Your task to perform on an android device: Add asus rog to the cart on bestbuy.com Image 0: 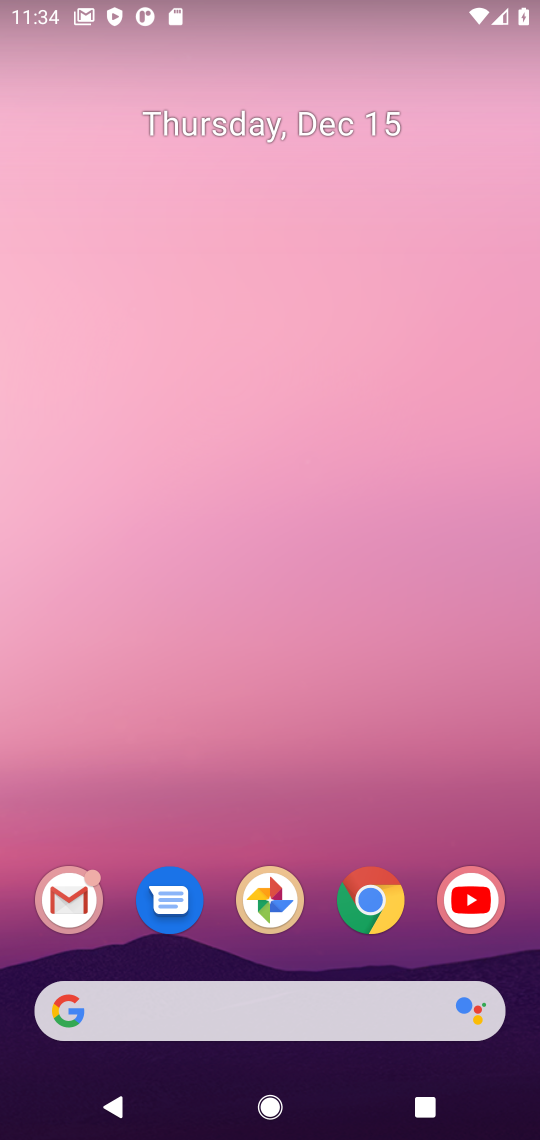
Step 0: click (381, 901)
Your task to perform on an android device: Add asus rog to the cart on bestbuy.com Image 1: 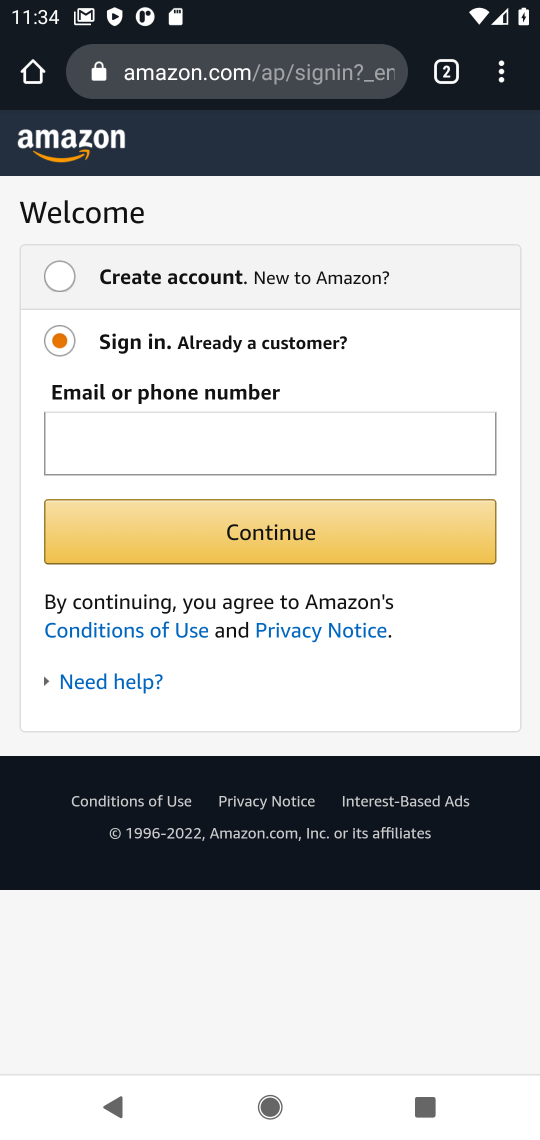
Step 1: click (305, 68)
Your task to perform on an android device: Add asus rog to the cart on bestbuy.com Image 2: 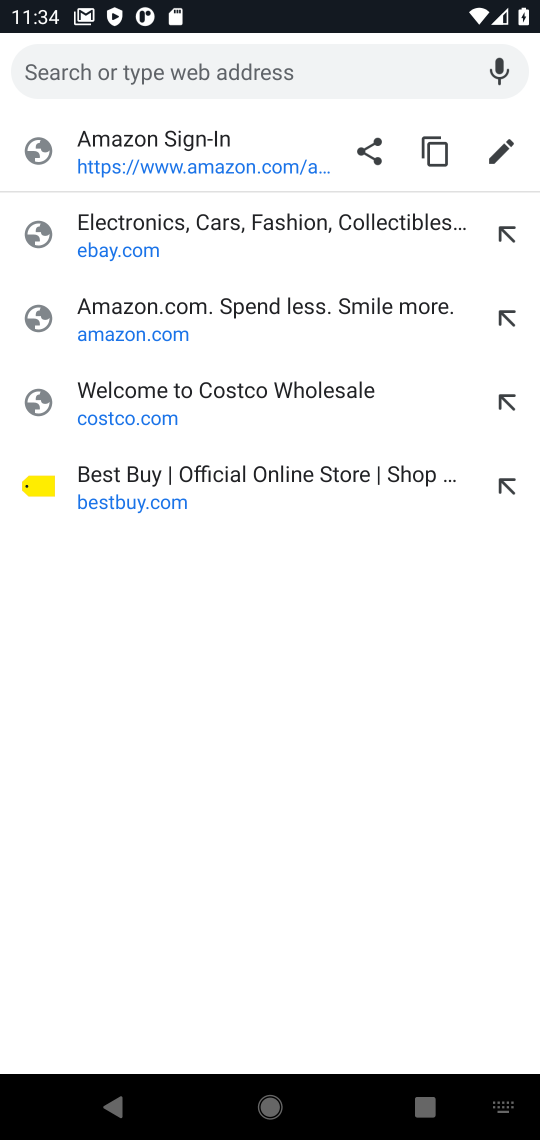
Step 2: click (236, 472)
Your task to perform on an android device: Add asus rog to the cart on bestbuy.com Image 3: 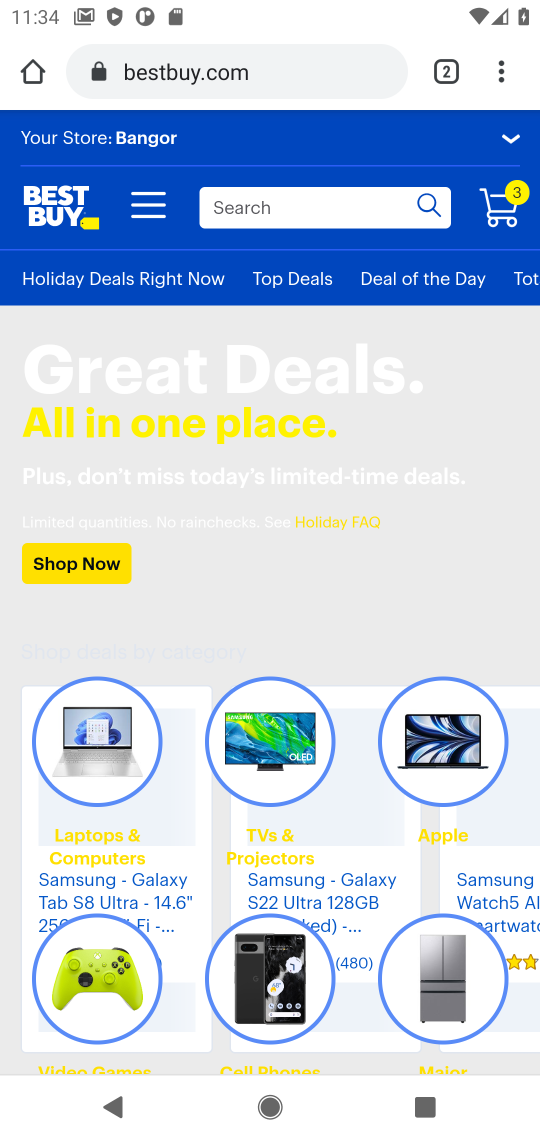
Step 3: click (353, 206)
Your task to perform on an android device: Add asus rog to the cart on bestbuy.com Image 4: 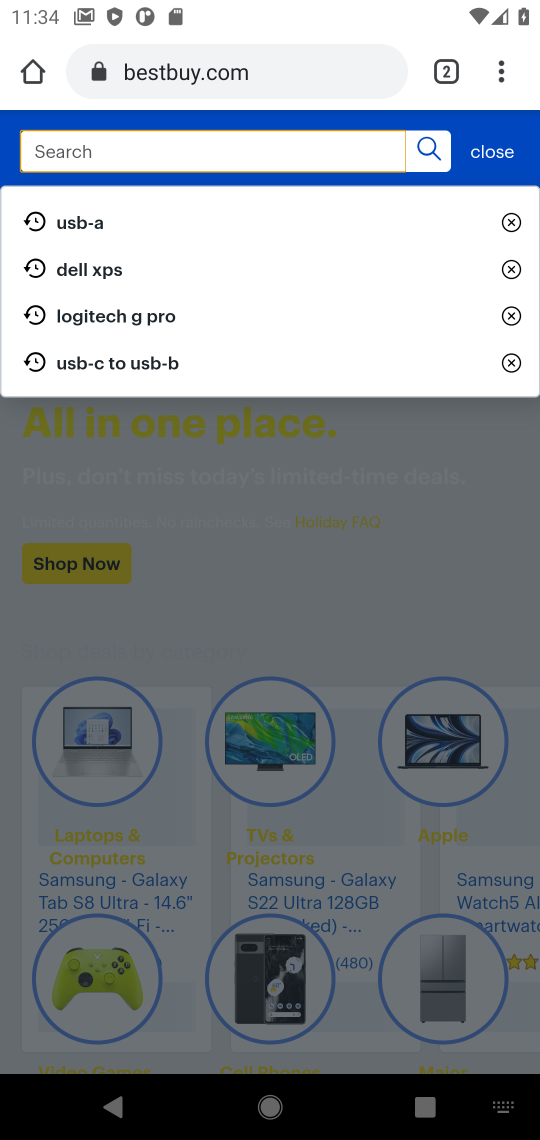
Step 4: type "asus rog "
Your task to perform on an android device: Add asus rog to the cart on bestbuy.com Image 5: 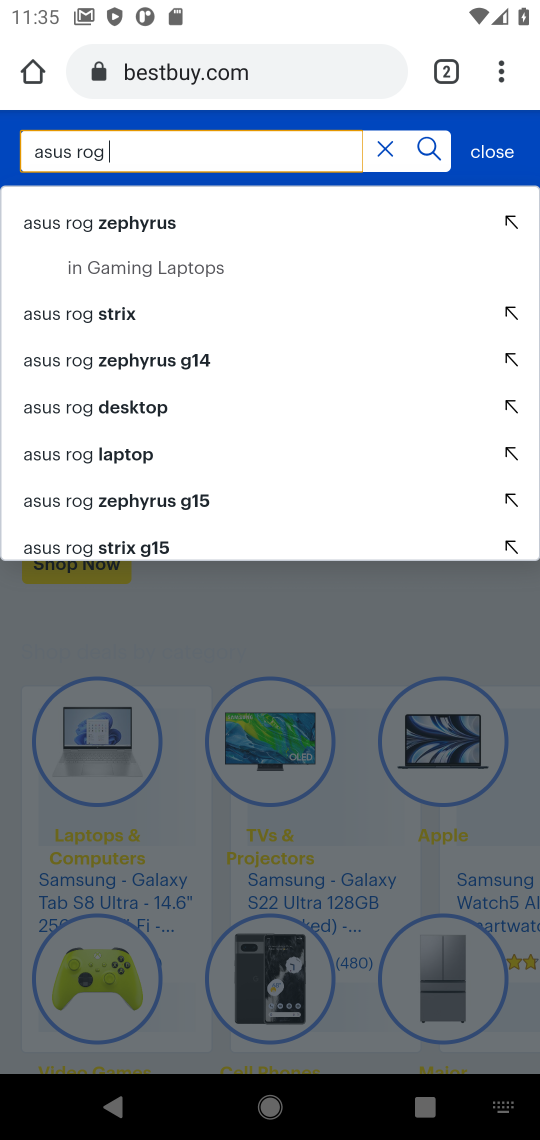
Step 5: click (65, 319)
Your task to perform on an android device: Add asus rog to the cart on bestbuy.com Image 6: 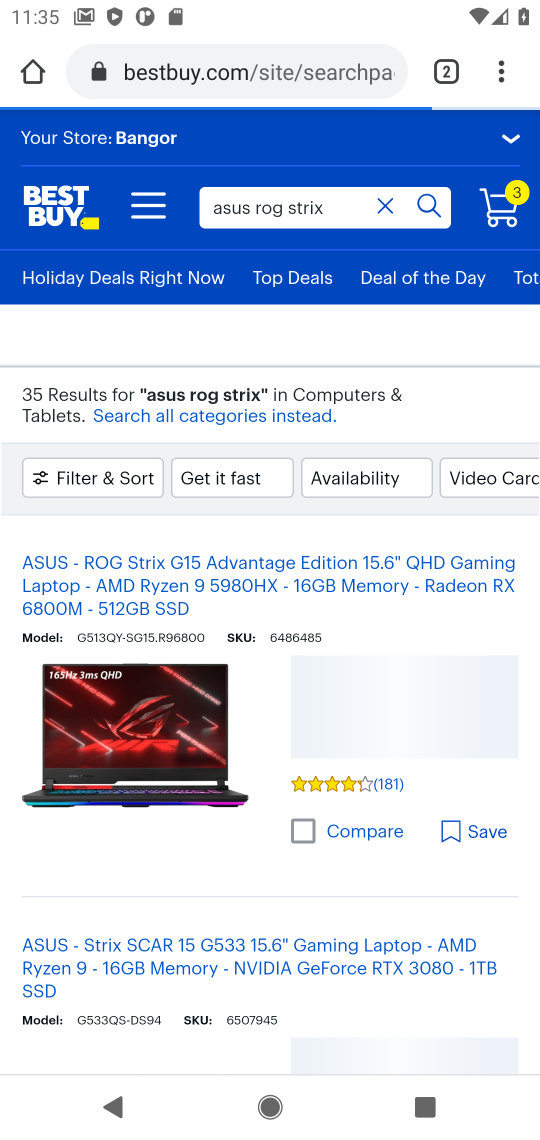
Step 6: click (139, 728)
Your task to perform on an android device: Add asus rog to the cart on bestbuy.com Image 7: 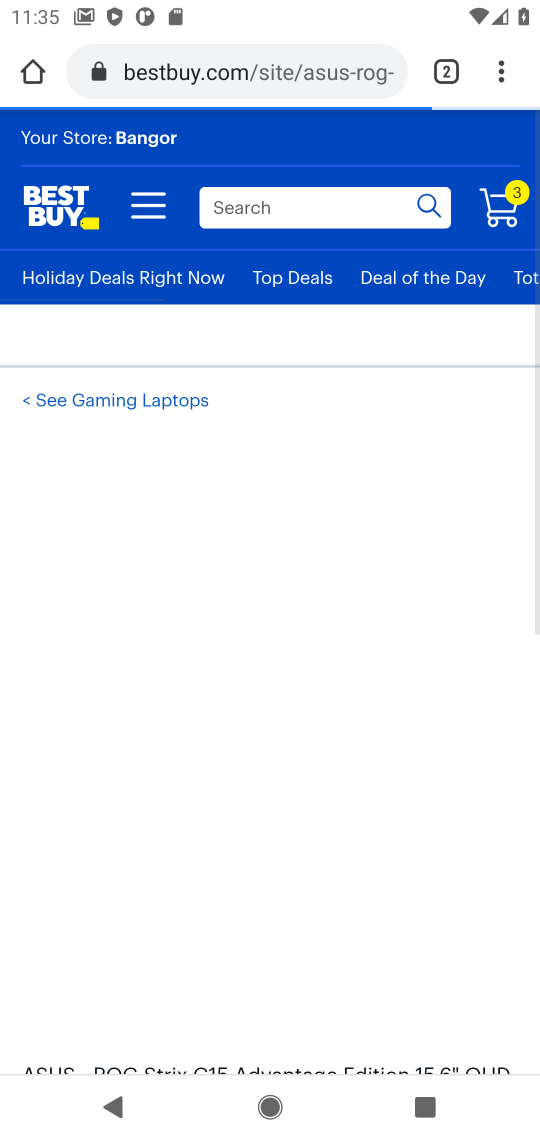
Step 7: click (413, 925)
Your task to perform on an android device: Add asus rog to the cart on bestbuy.com Image 8: 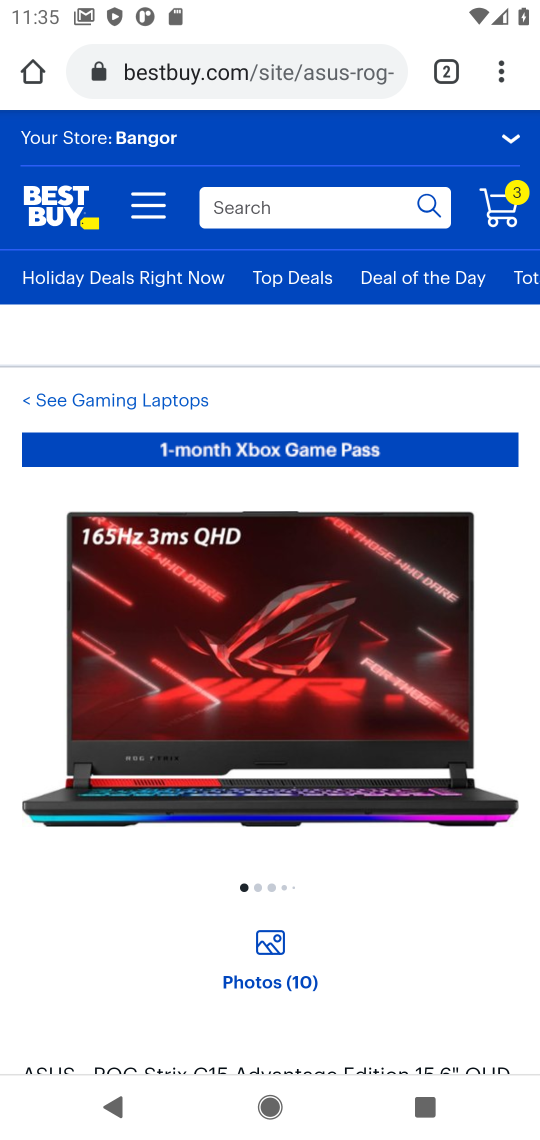
Step 8: drag from (412, 927) to (456, 691)
Your task to perform on an android device: Add asus rog to the cart on bestbuy.com Image 9: 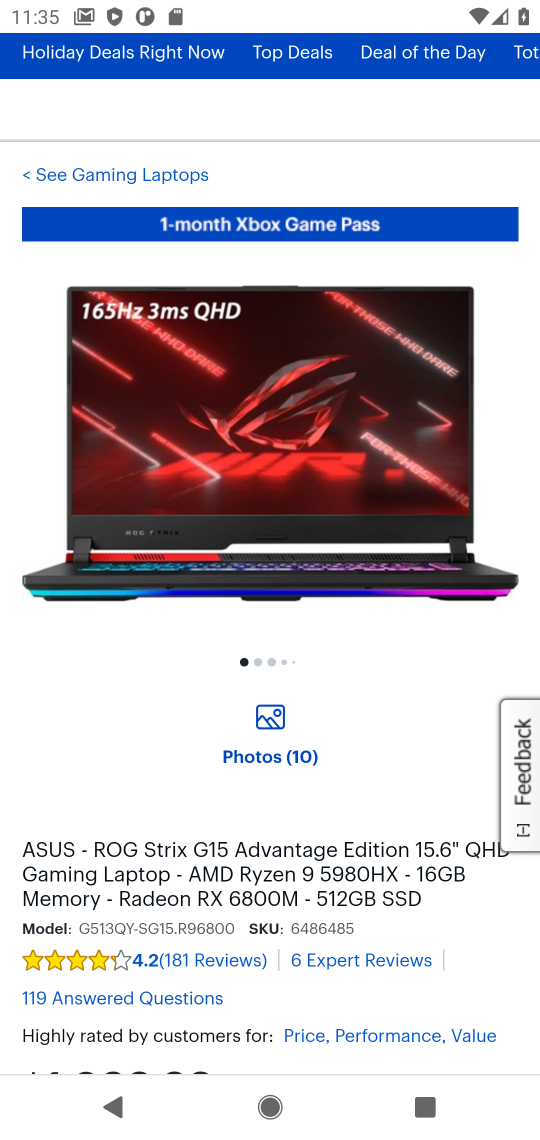
Step 9: drag from (463, 883) to (439, 544)
Your task to perform on an android device: Add asus rog to the cart on bestbuy.com Image 10: 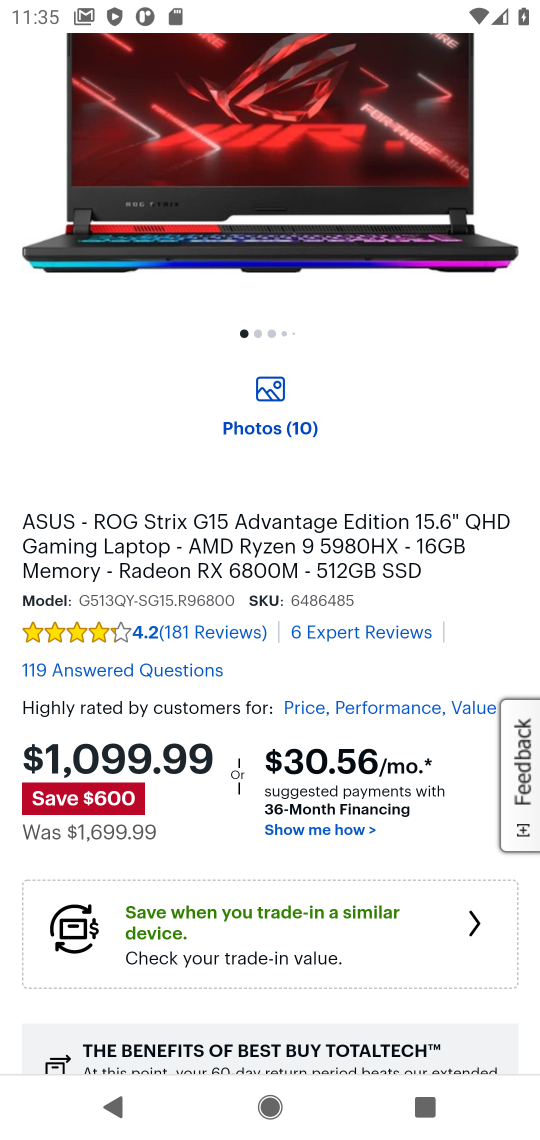
Step 10: drag from (415, 876) to (405, 567)
Your task to perform on an android device: Add asus rog to the cart on bestbuy.com Image 11: 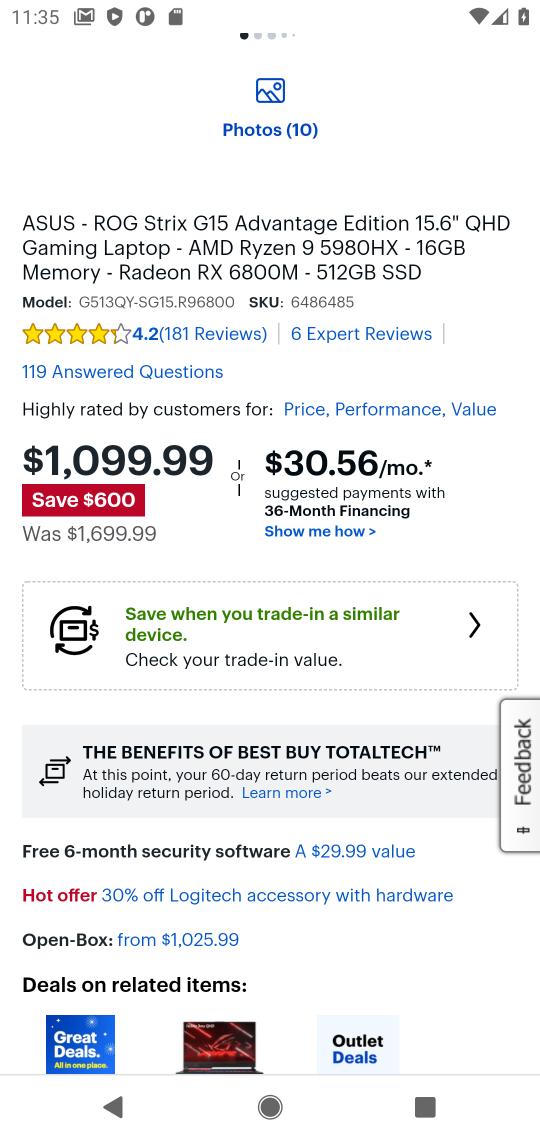
Step 11: drag from (461, 986) to (395, 610)
Your task to perform on an android device: Add asus rog to the cart on bestbuy.com Image 12: 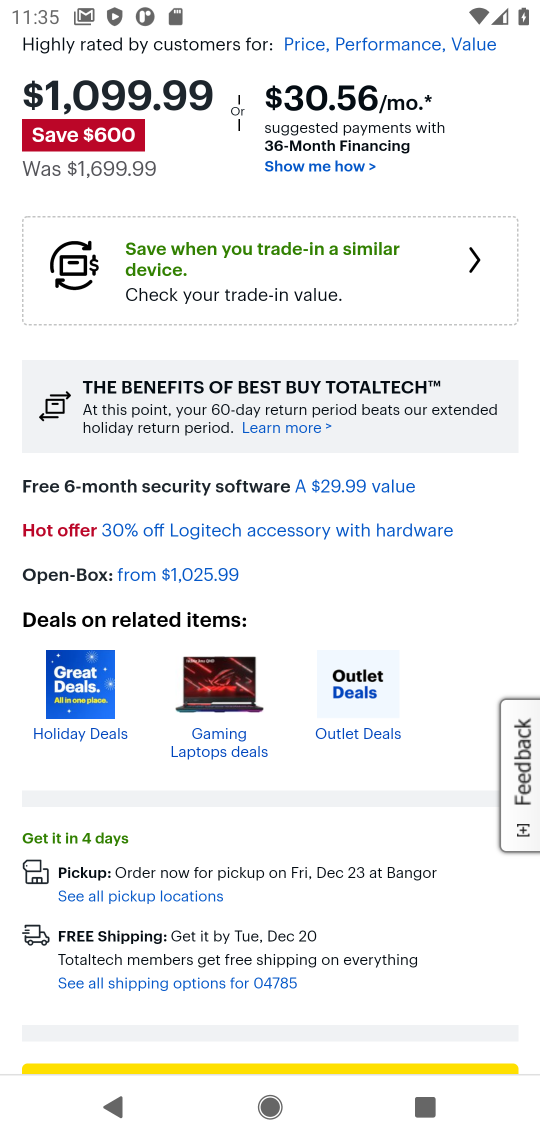
Step 12: drag from (442, 761) to (353, 448)
Your task to perform on an android device: Add asus rog to the cart on bestbuy.com Image 13: 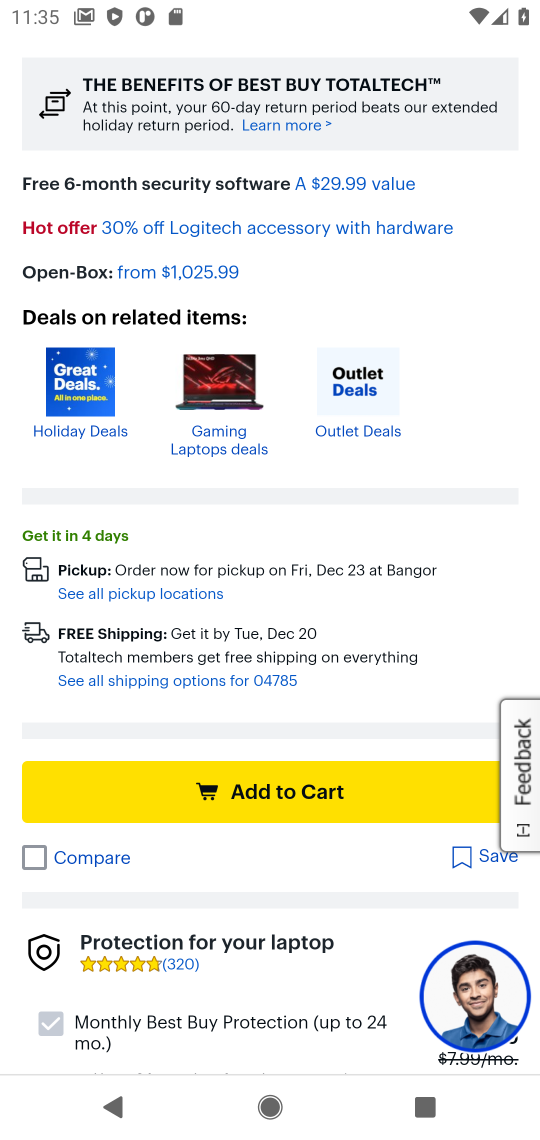
Step 13: click (327, 794)
Your task to perform on an android device: Add asus rog to the cart on bestbuy.com Image 14: 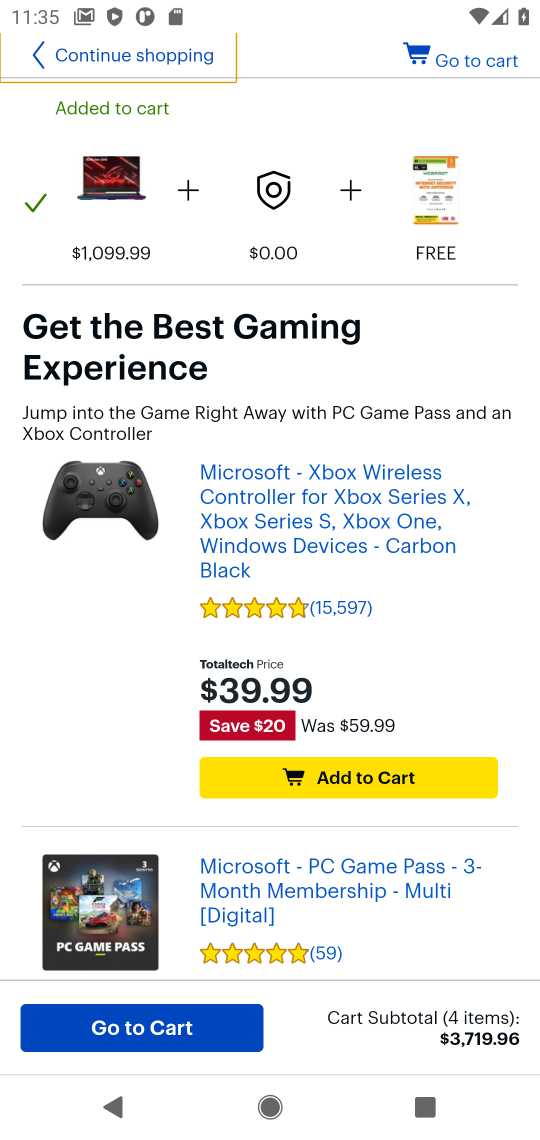
Step 14: task complete